Your task to perform on an android device: Go to battery settings Image 0: 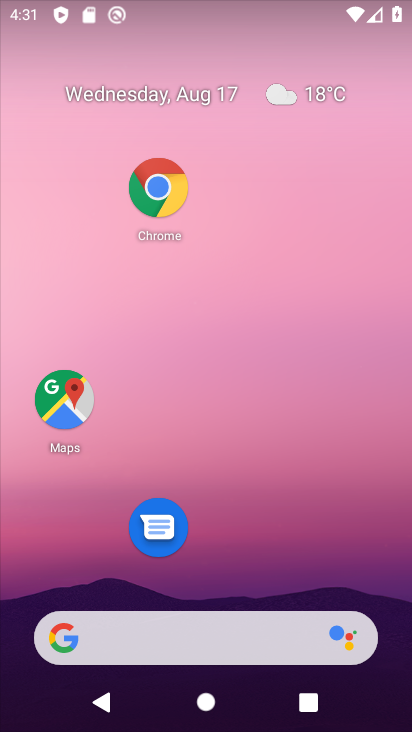
Step 0: drag from (302, 8) to (311, 663)
Your task to perform on an android device: Go to battery settings Image 1: 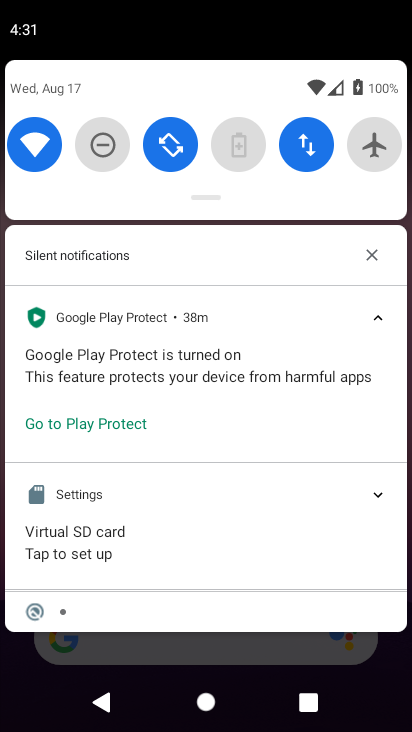
Step 1: click (220, 149)
Your task to perform on an android device: Go to battery settings Image 2: 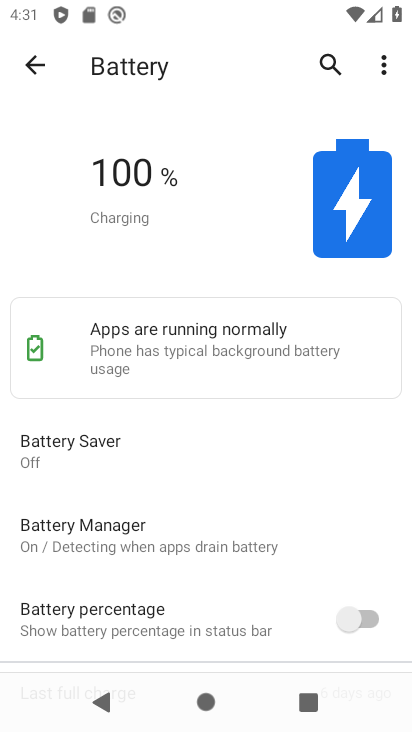
Step 2: task complete